Your task to perform on an android device: What is the recent news? Image 0: 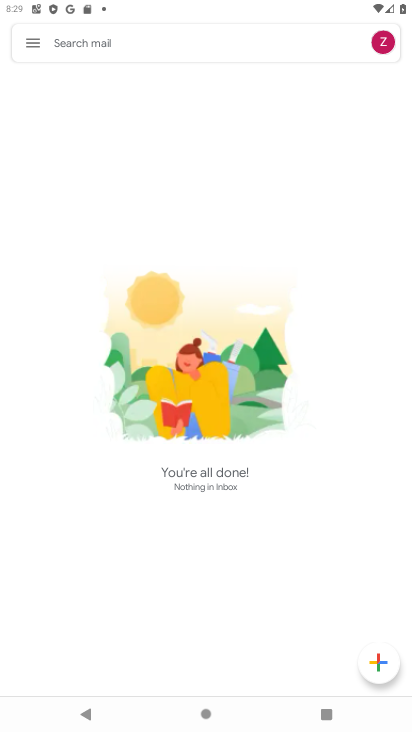
Step 0: press home button
Your task to perform on an android device: What is the recent news? Image 1: 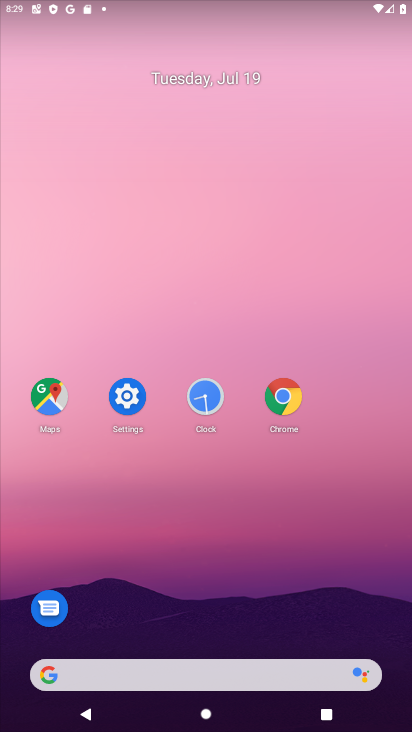
Step 1: task complete